Your task to perform on an android device: toggle sleep mode Image 0: 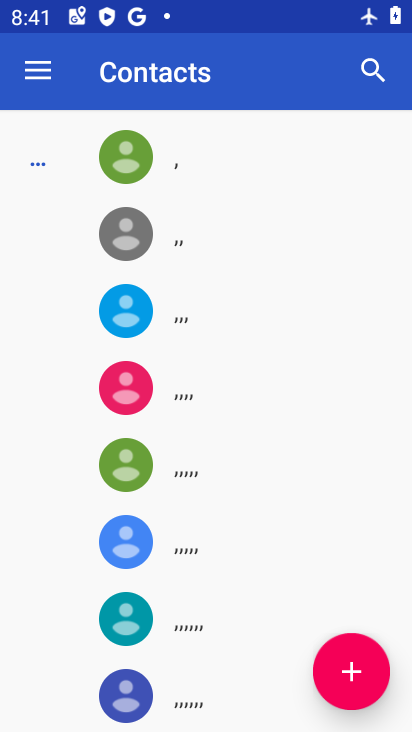
Step 0: press home button
Your task to perform on an android device: toggle sleep mode Image 1: 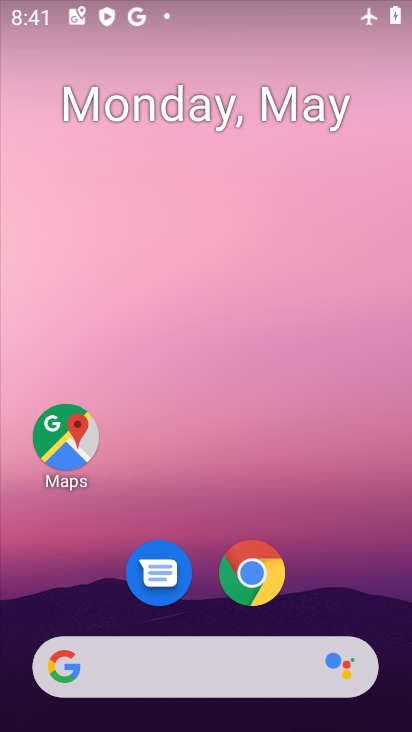
Step 1: drag from (189, 628) to (292, 135)
Your task to perform on an android device: toggle sleep mode Image 2: 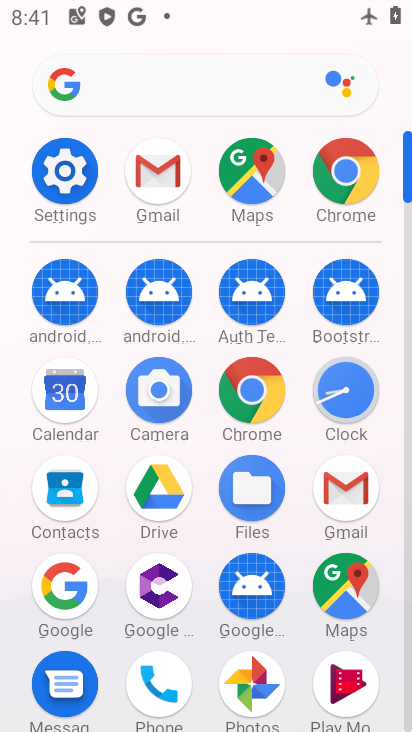
Step 2: click (73, 194)
Your task to perform on an android device: toggle sleep mode Image 3: 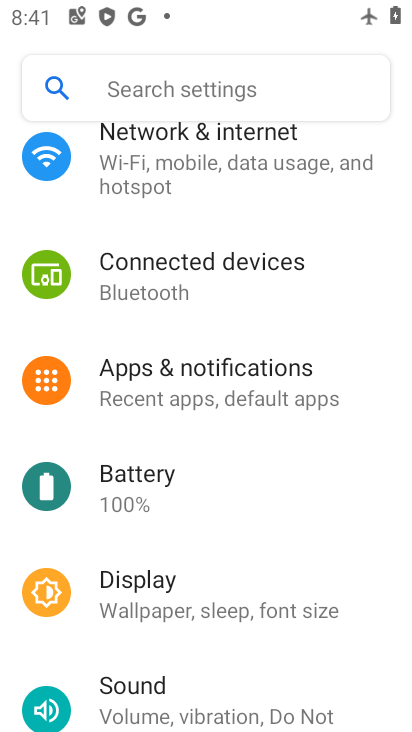
Step 3: drag from (159, 553) to (233, 278)
Your task to perform on an android device: toggle sleep mode Image 4: 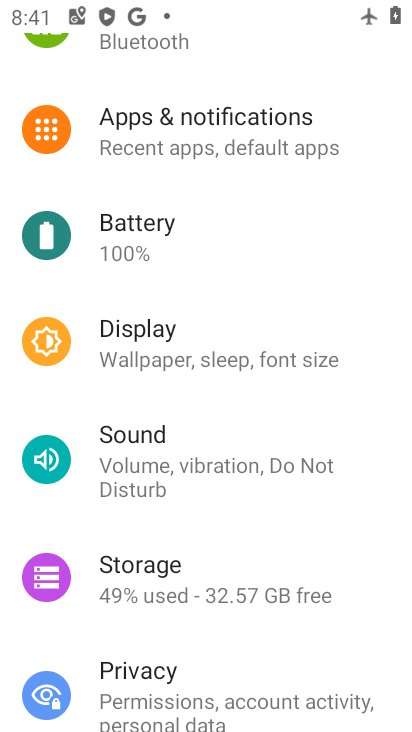
Step 4: click (192, 349)
Your task to perform on an android device: toggle sleep mode Image 5: 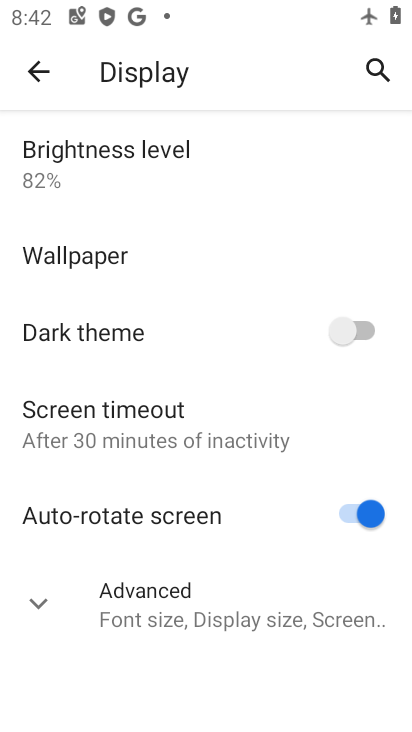
Step 5: click (150, 633)
Your task to perform on an android device: toggle sleep mode Image 6: 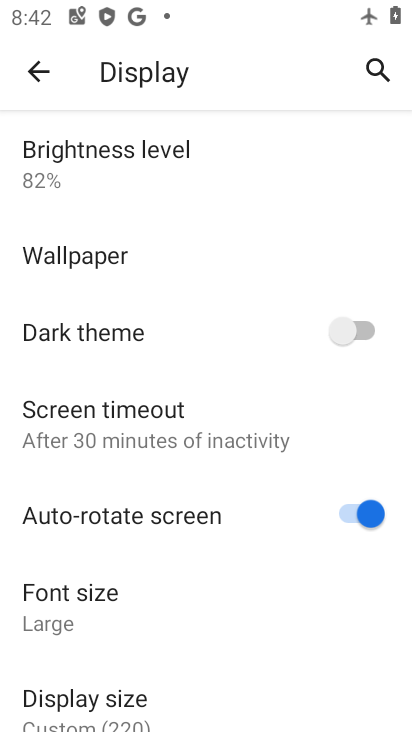
Step 6: task complete